Your task to perform on an android device: turn off wifi Image 0: 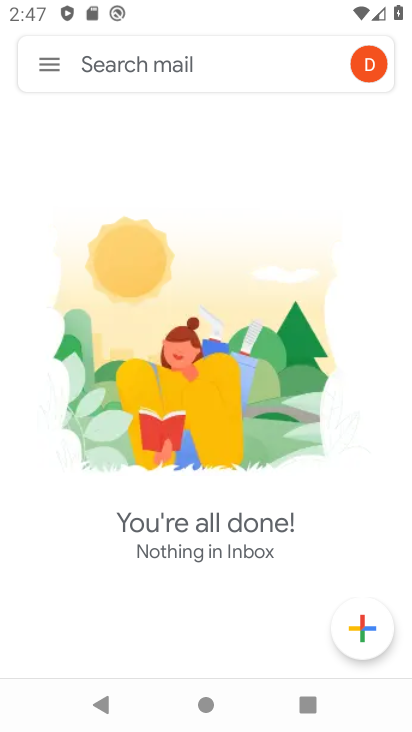
Step 0: press home button
Your task to perform on an android device: turn off wifi Image 1: 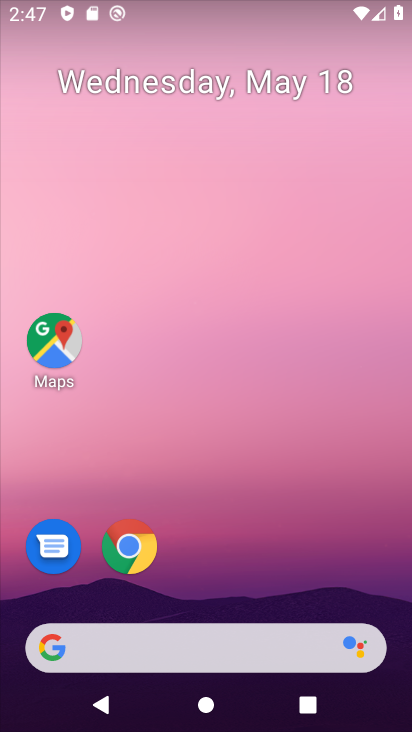
Step 1: drag from (232, 724) to (231, 196)
Your task to perform on an android device: turn off wifi Image 2: 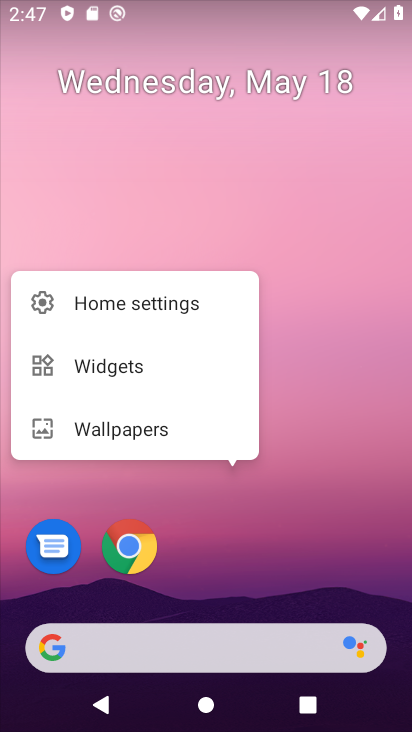
Step 2: click (228, 202)
Your task to perform on an android device: turn off wifi Image 3: 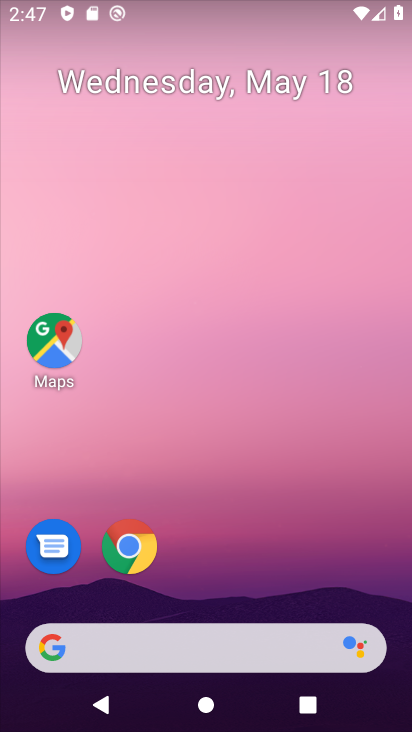
Step 3: drag from (227, 725) to (221, 117)
Your task to perform on an android device: turn off wifi Image 4: 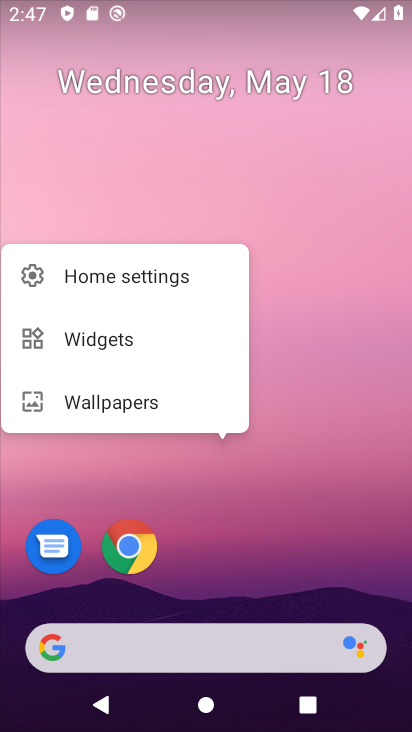
Step 4: click (286, 517)
Your task to perform on an android device: turn off wifi Image 5: 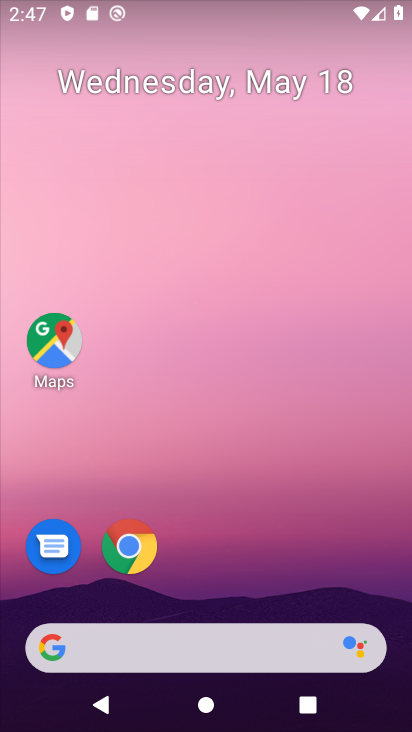
Step 5: drag from (230, 723) to (237, 117)
Your task to perform on an android device: turn off wifi Image 6: 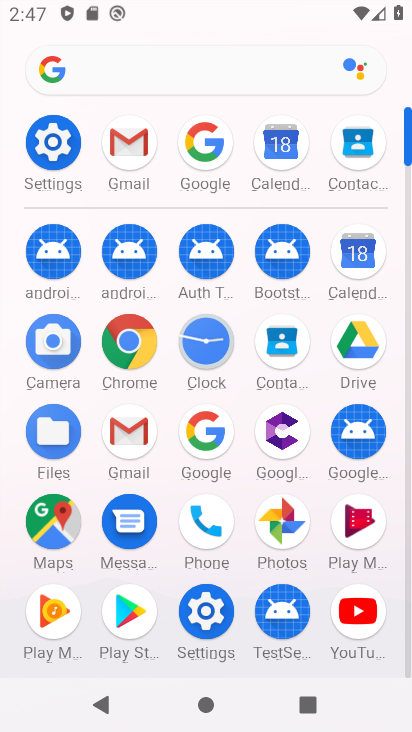
Step 6: click (59, 136)
Your task to perform on an android device: turn off wifi Image 7: 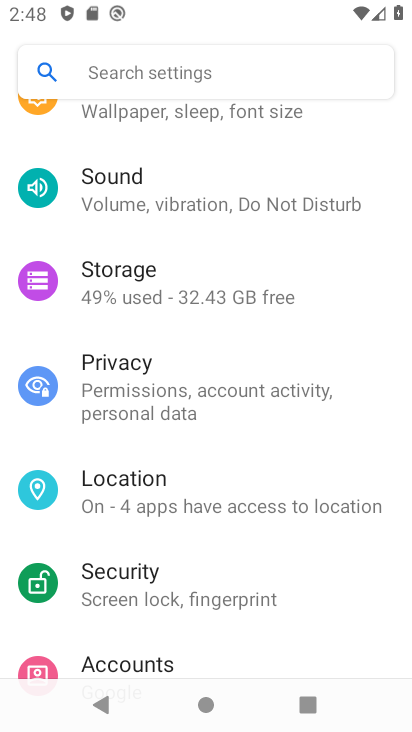
Step 7: drag from (168, 201) to (160, 613)
Your task to perform on an android device: turn off wifi Image 8: 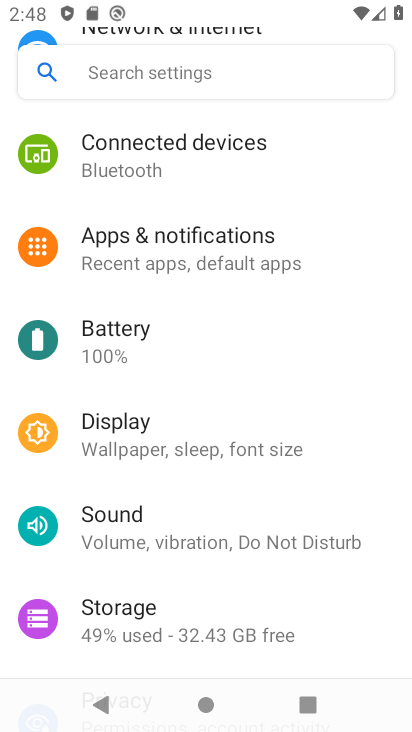
Step 8: drag from (229, 183) to (231, 512)
Your task to perform on an android device: turn off wifi Image 9: 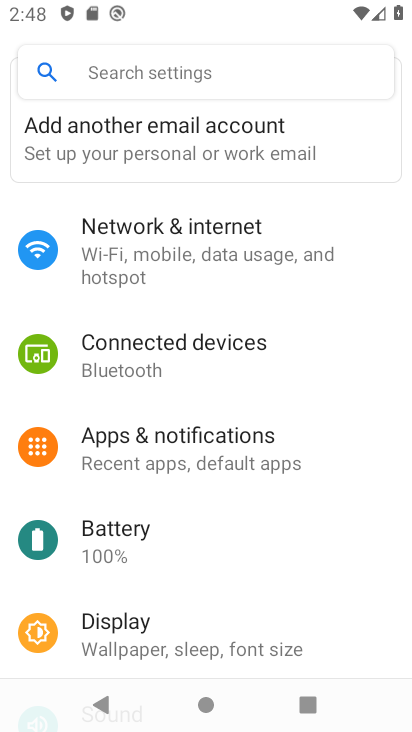
Step 9: click (217, 231)
Your task to perform on an android device: turn off wifi Image 10: 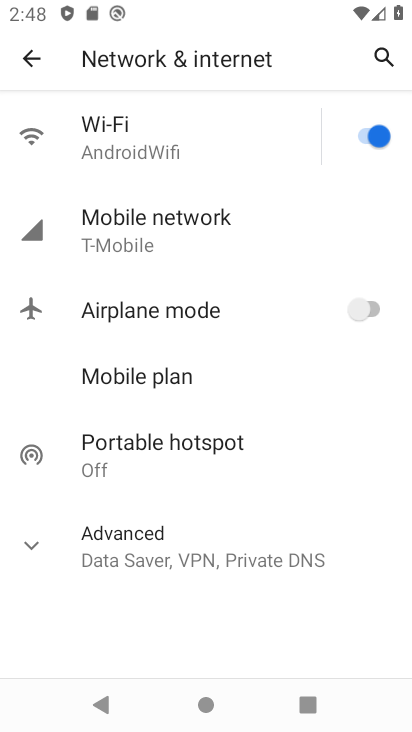
Step 10: click (366, 135)
Your task to perform on an android device: turn off wifi Image 11: 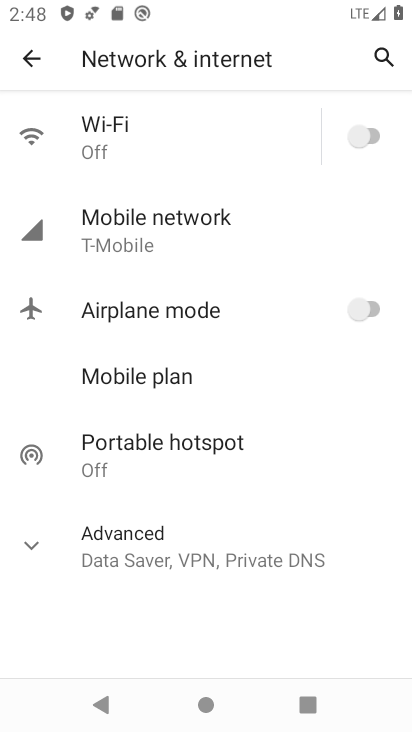
Step 11: task complete